Your task to perform on an android device: Check out the new nike air max 2020. Image 0: 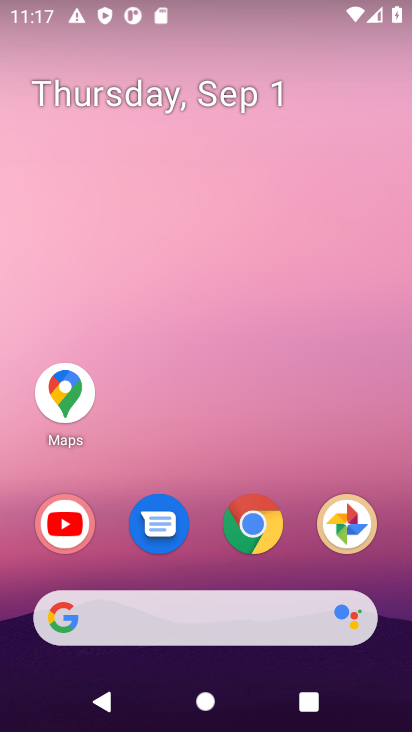
Step 0: click (253, 517)
Your task to perform on an android device: Check out the new nike air max 2020. Image 1: 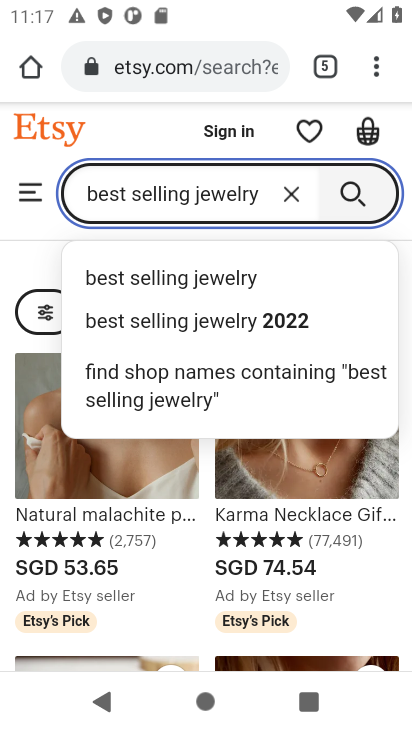
Step 1: click (324, 68)
Your task to perform on an android device: Check out the new nike air max 2020. Image 2: 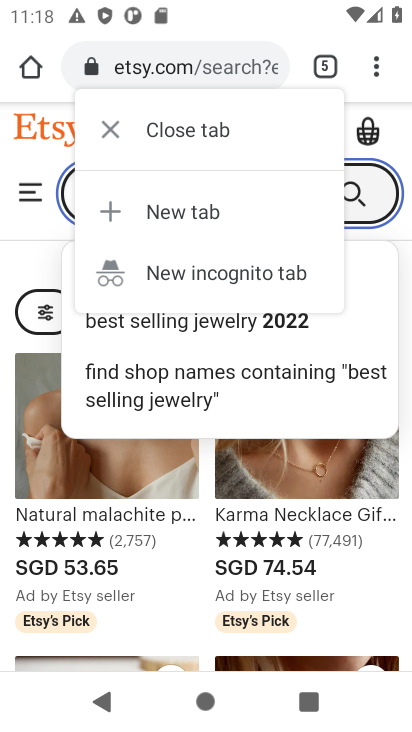
Step 2: click (130, 208)
Your task to perform on an android device: Check out the new nike air max 2020. Image 3: 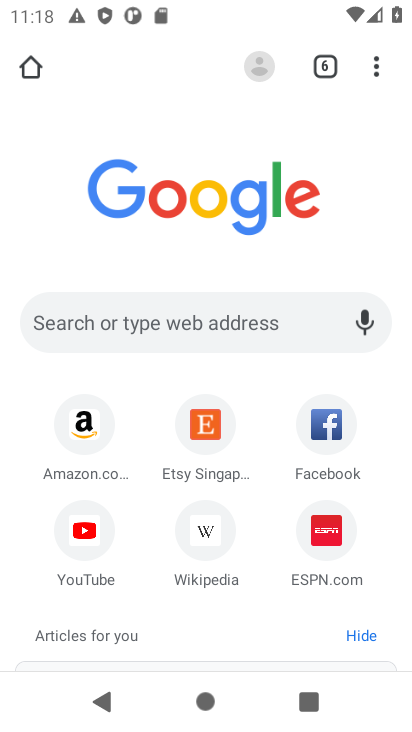
Step 3: click (112, 345)
Your task to perform on an android device: Check out the new nike air max 2020. Image 4: 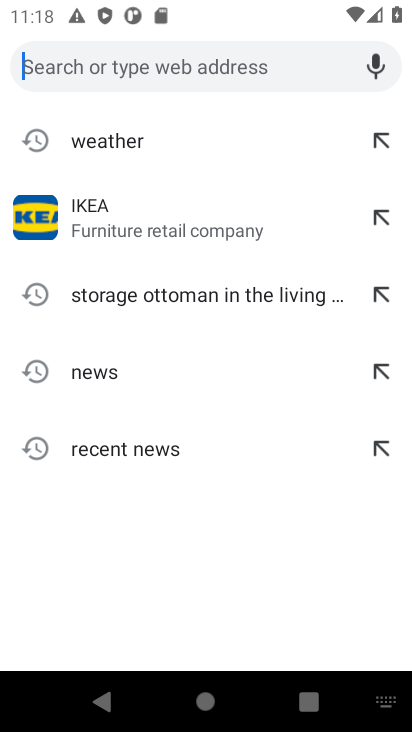
Step 4: type "new nike air max 2020"
Your task to perform on an android device: Check out the new nike air max 2020. Image 5: 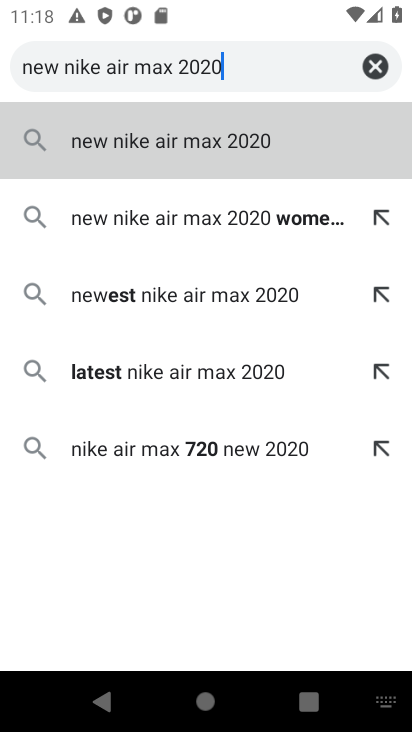
Step 5: click (161, 133)
Your task to perform on an android device: Check out the new nike air max 2020. Image 6: 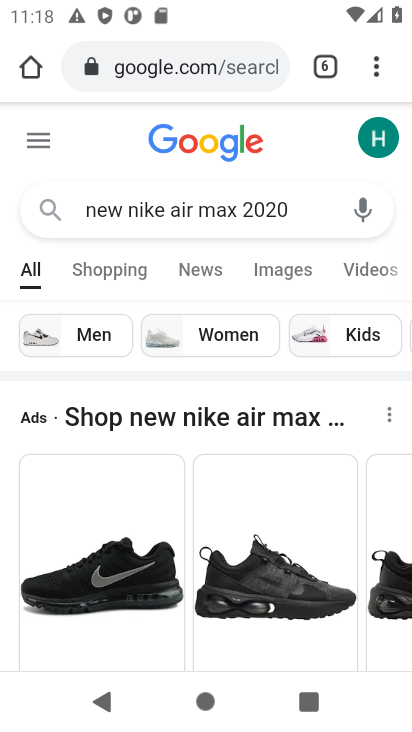
Step 6: drag from (176, 588) to (380, 184)
Your task to perform on an android device: Check out the new nike air max 2020. Image 7: 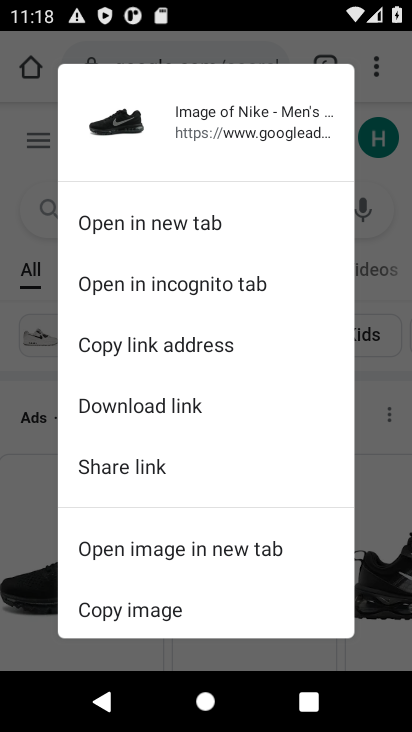
Step 7: click (380, 184)
Your task to perform on an android device: Check out the new nike air max 2020. Image 8: 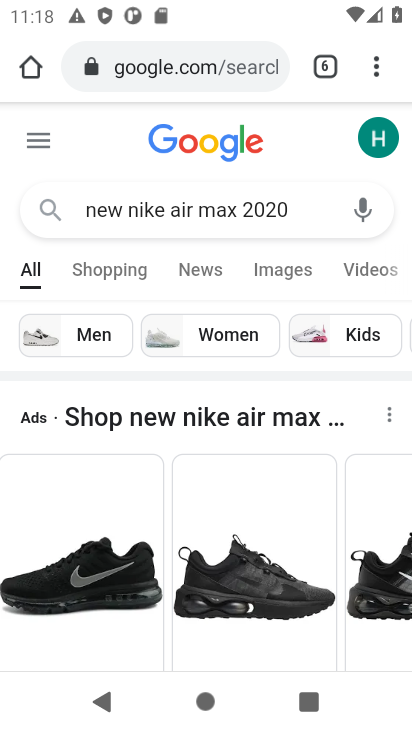
Step 8: drag from (174, 599) to (195, 244)
Your task to perform on an android device: Check out the new nike air max 2020. Image 9: 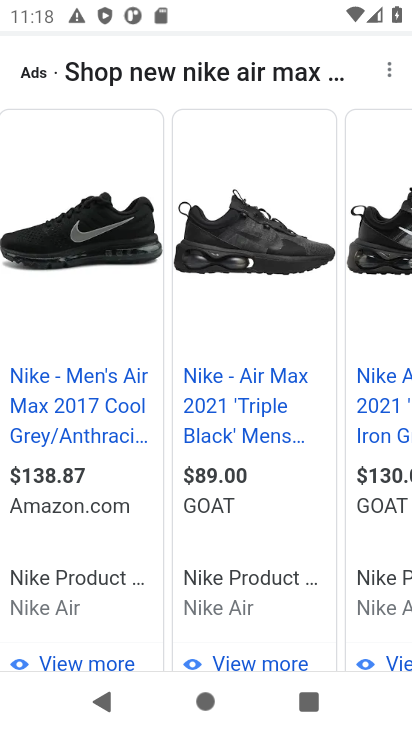
Step 9: drag from (335, 432) to (140, 448)
Your task to perform on an android device: Check out the new nike air max 2020. Image 10: 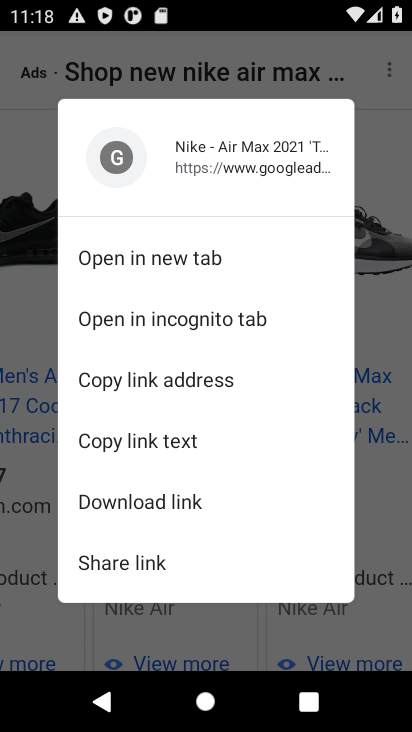
Step 10: click (381, 449)
Your task to perform on an android device: Check out the new nike air max 2020. Image 11: 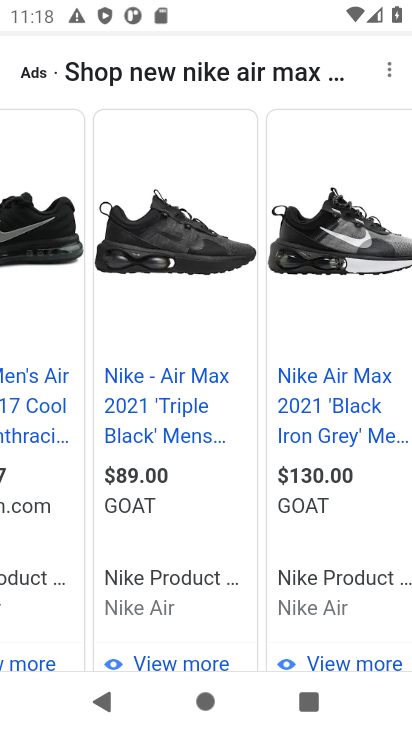
Step 11: drag from (357, 493) to (157, 482)
Your task to perform on an android device: Check out the new nike air max 2020. Image 12: 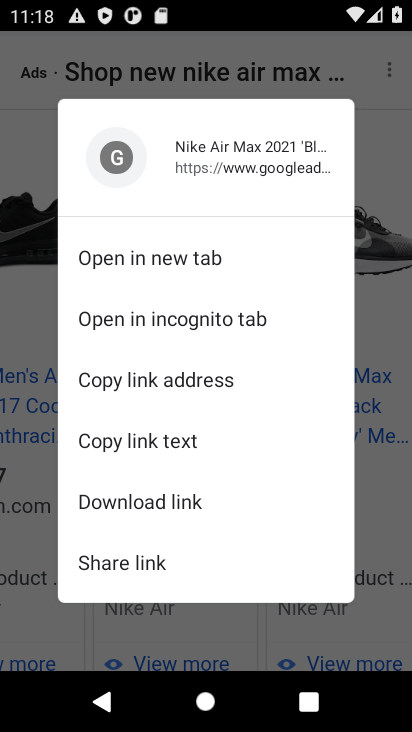
Step 12: click (138, 627)
Your task to perform on an android device: Check out the new nike air max 2020. Image 13: 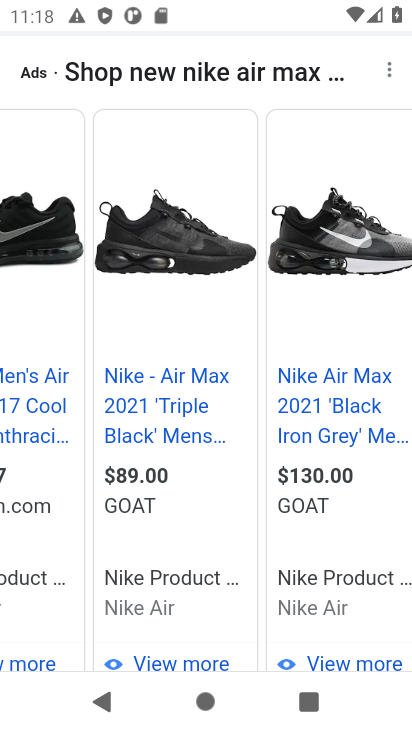
Step 13: drag from (235, 545) to (4, 568)
Your task to perform on an android device: Check out the new nike air max 2020. Image 14: 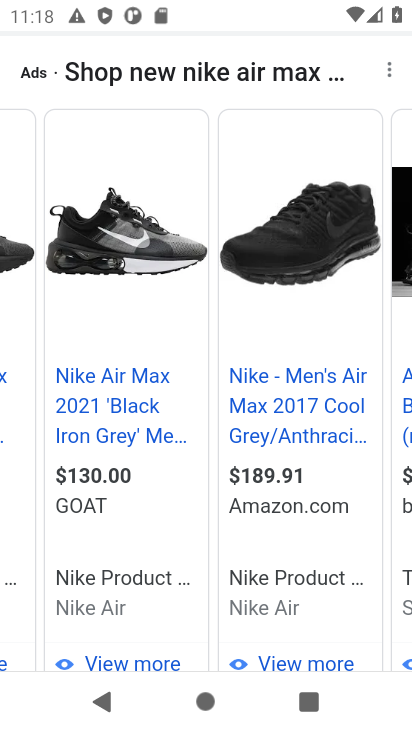
Step 14: drag from (291, 603) to (88, 594)
Your task to perform on an android device: Check out the new nike air max 2020. Image 15: 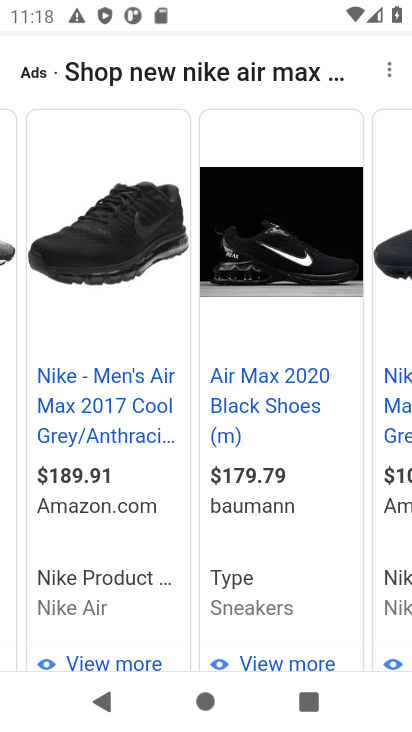
Step 15: drag from (305, 541) to (174, 533)
Your task to perform on an android device: Check out the new nike air max 2020. Image 16: 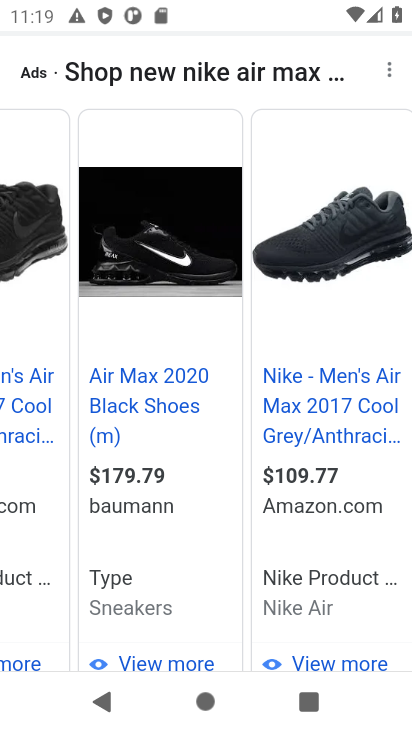
Step 16: click (142, 377)
Your task to perform on an android device: Check out the new nike air max 2020. Image 17: 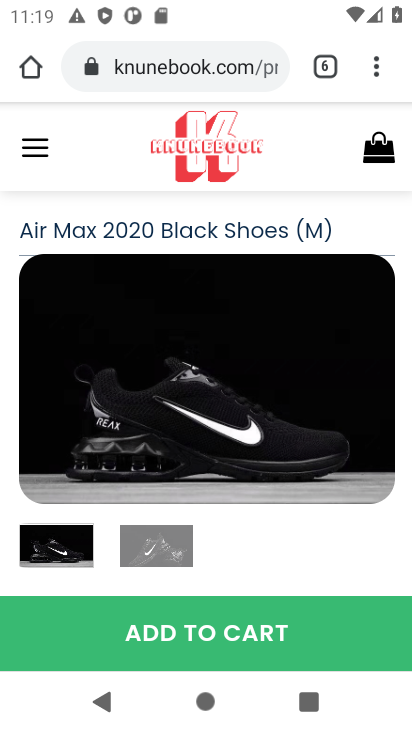
Step 17: drag from (264, 551) to (227, 254)
Your task to perform on an android device: Check out the new nike air max 2020. Image 18: 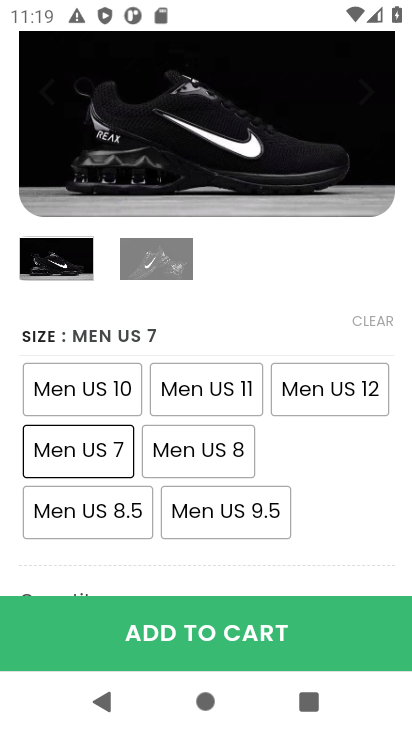
Step 18: drag from (330, 494) to (326, 308)
Your task to perform on an android device: Check out the new nike air max 2020. Image 19: 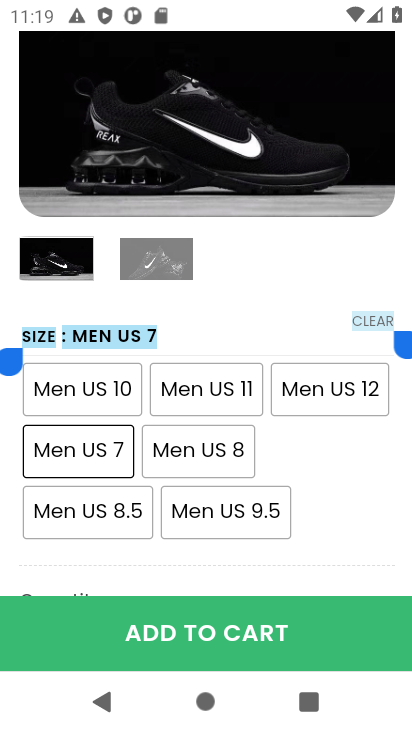
Step 19: click (338, 513)
Your task to perform on an android device: Check out the new nike air max 2020. Image 20: 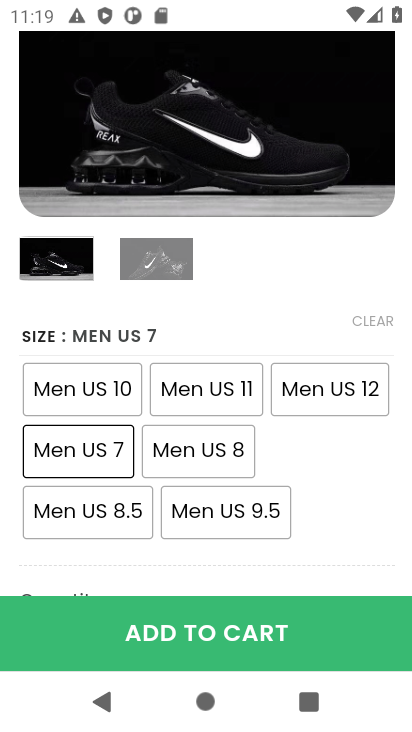
Step 20: task complete